Your task to perform on an android device: Go to Android settings Image 0: 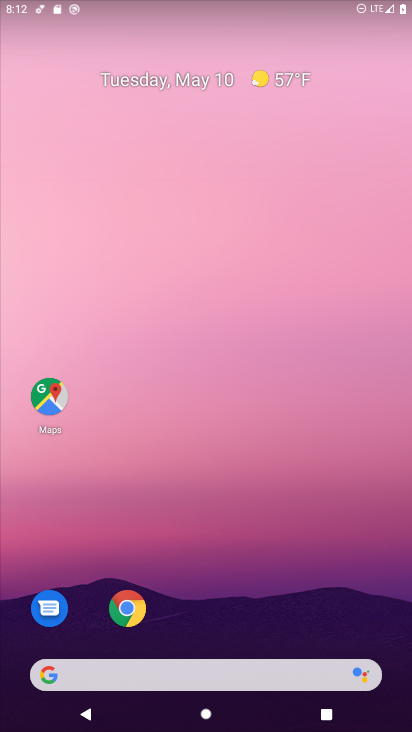
Step 0: drag from (361, 602) to (278, 58)
Your task to perform on an android device: Go to Android settings Image 1: 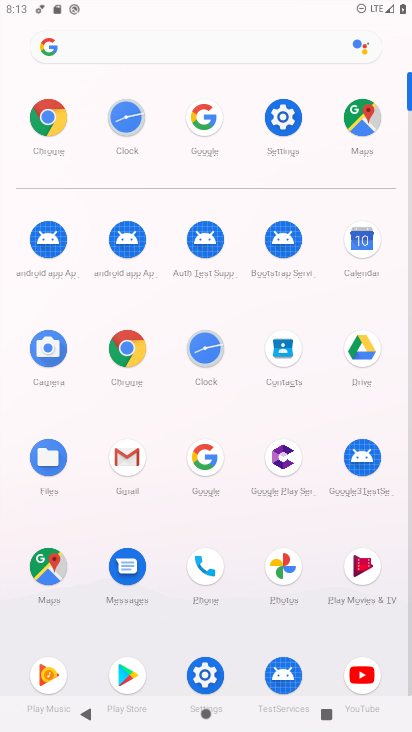
Step 1: click (212, 678)
Your task to perform on an android device: Go to Android settings Image 2: 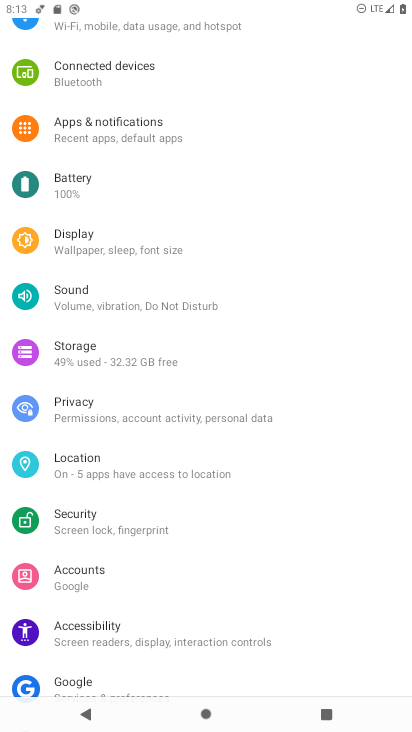
Step 2: drag from (192, 653) to (256, 158)
Your task to perform on an android device: Go to Android settings Image 3: 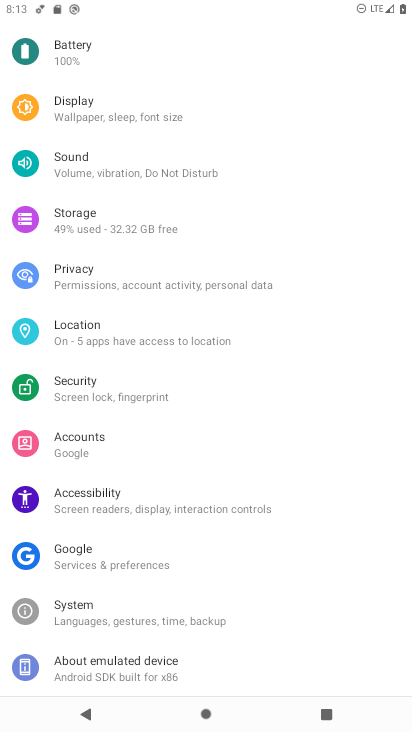
Step 3: drag from (222, 633) to (259, 127)
Your task to perform on an android device: Go to Android settings Image 4: 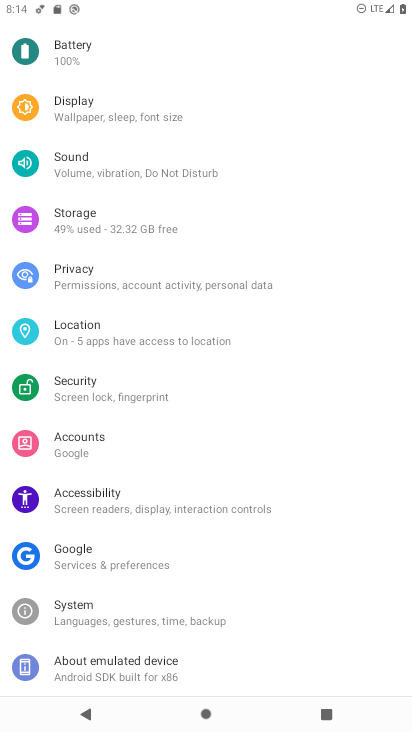
Step 4: click (169, 672)
Your task to perform on an android device: Go to Android settings Image 5: 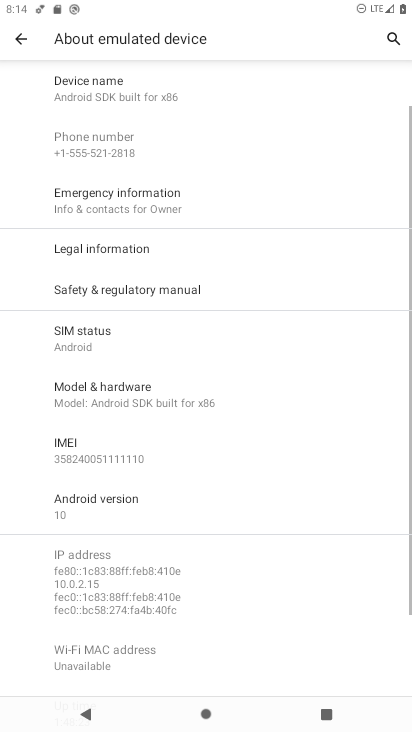
Step 5: click (88, 499)
Your task to perform on an android device: Go to Android settings Image 6: 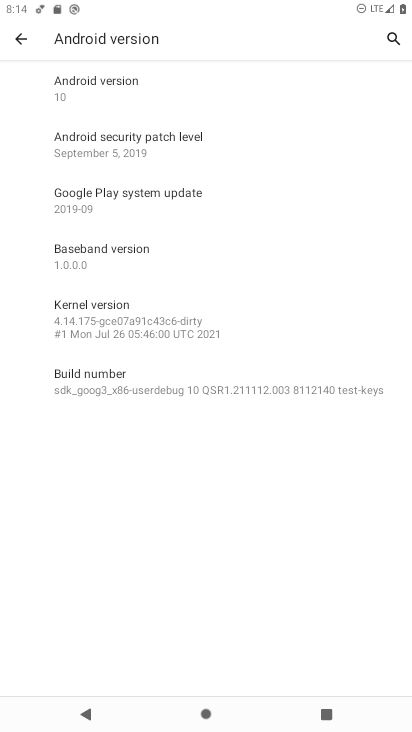
Step 6: task complete